Your task to perform on an android device: Open Maps and search for coffee Image 0: 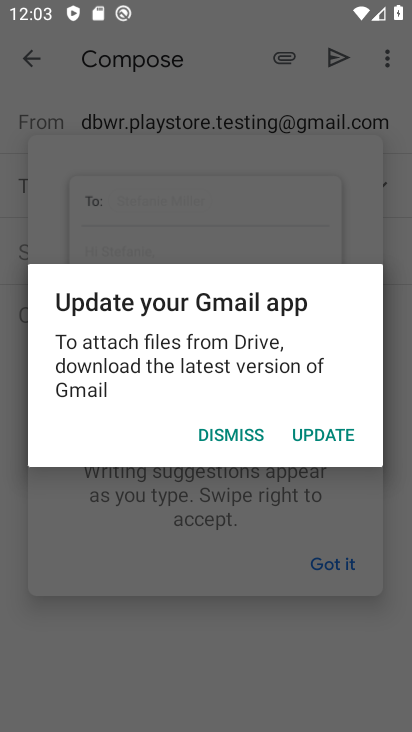
Step 0: press home button
Your task to perform on an android device: Open Maps and search for coffee Image 1: 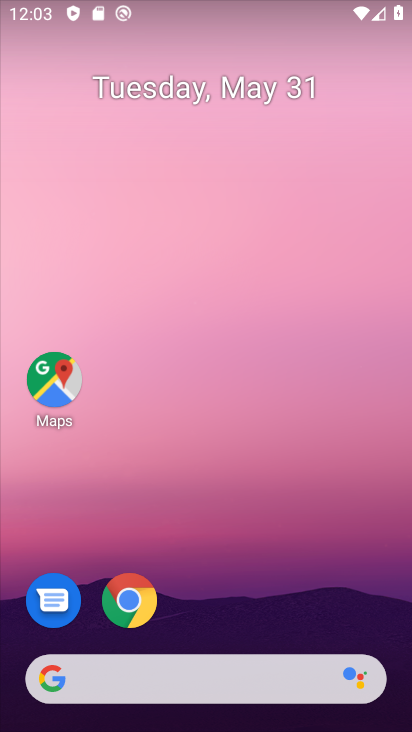
Step 1: click (41, 378)
Your task to perform on an android device: Open Maps and search for coffee Image 2: 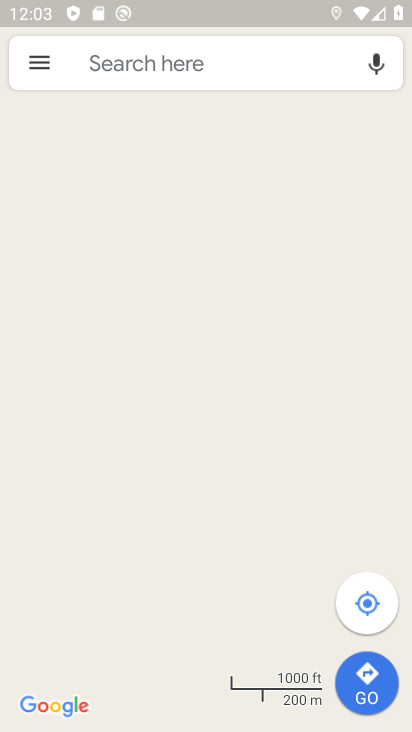
Step 2: click (217, 65)
Your task to perform on an android device: Open Maps and search for coffee Image 3: 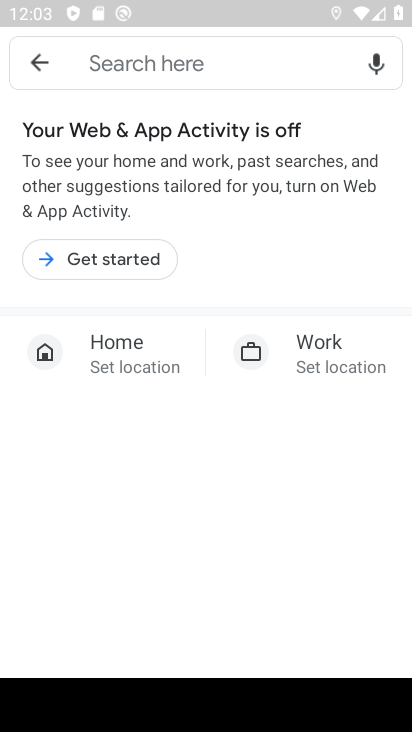
Step 3: click (175, 63)
Your task to perform on an android device: Open Maps and search for coffee Image 4: 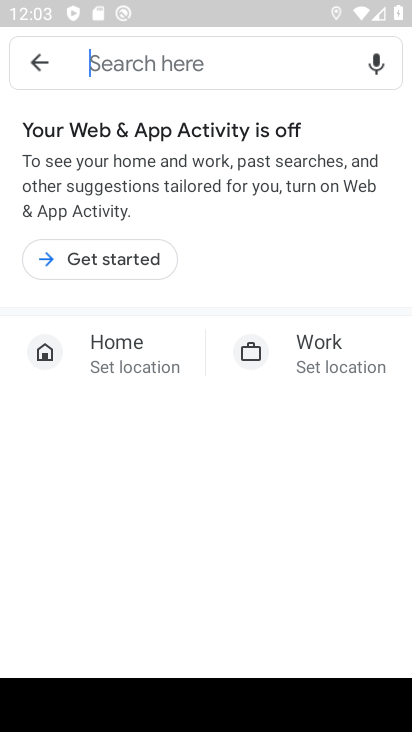
Step 4: click (140, 64)
Your task to perform on an android device: Open Maps and search for coffee Image 5: 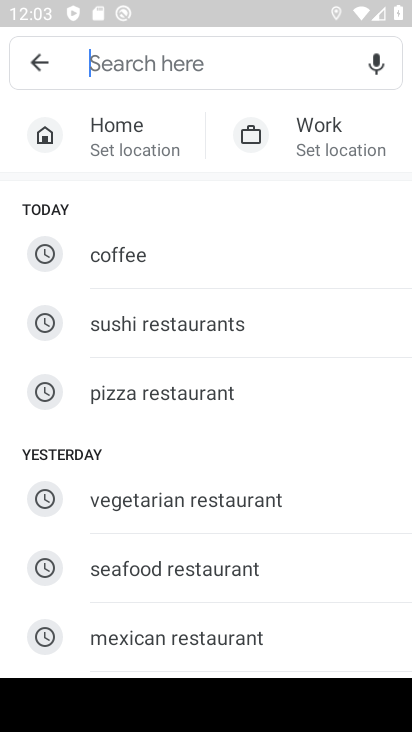
Step 5: click (104, 256)
Your task to perform on an android device: Open Maps and search for coffee Image 6: 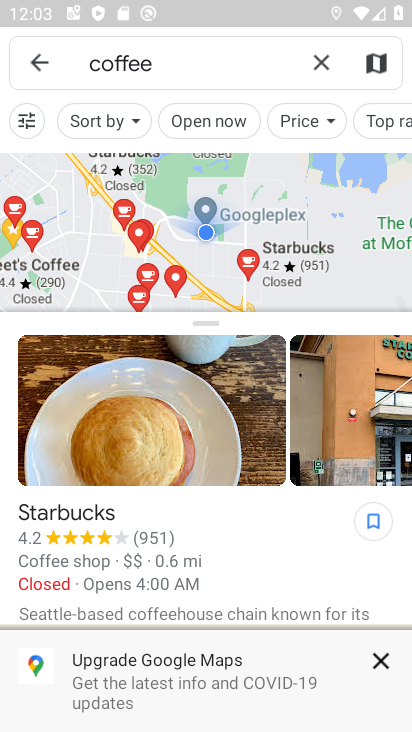
Step 6: task complete